Your task to perform on an android device: Open my contact list Image 0: 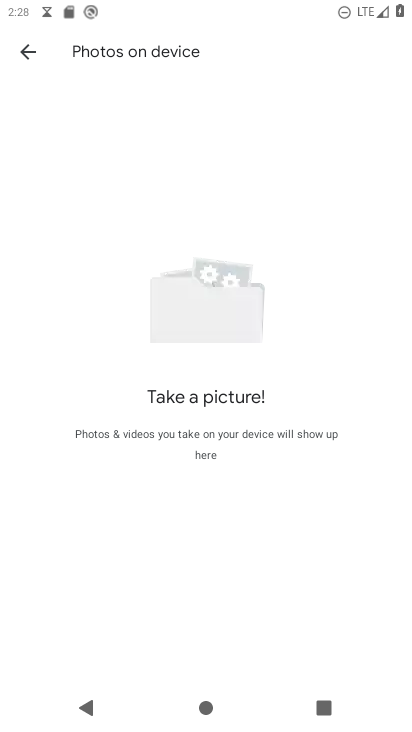
Step 0: press home button
Your task to perform on an android device: Open my contact list Image 1: 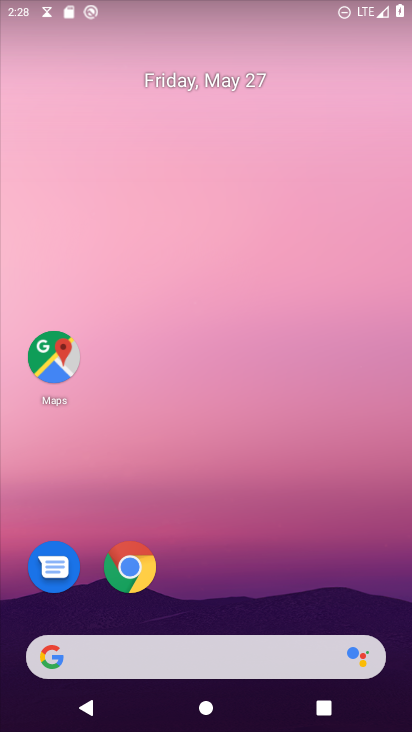
Step 1: drag from (244, 599) to (271, 102)
Your task to perform on an android device: Open my contact list Image 2: 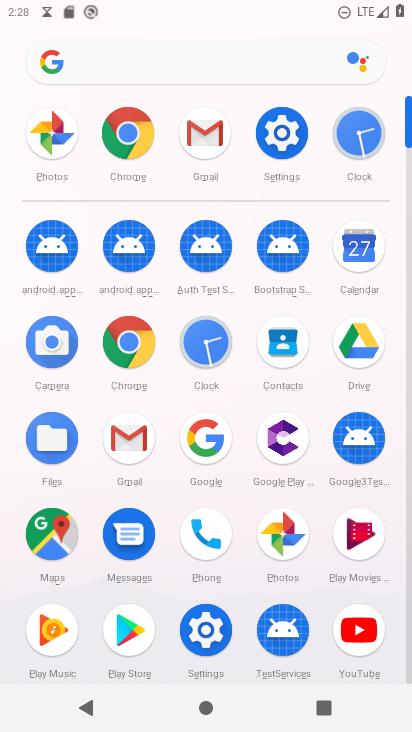
Step 2: click (282, 338)
Your task to perform on an android device: Open my contact list Image 3: 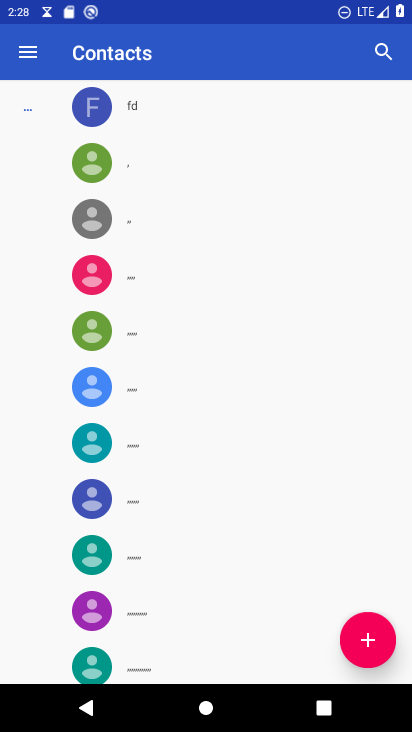
Step 3: task complete